Your task to perform on an android device: Open accessibility settings Image 0: 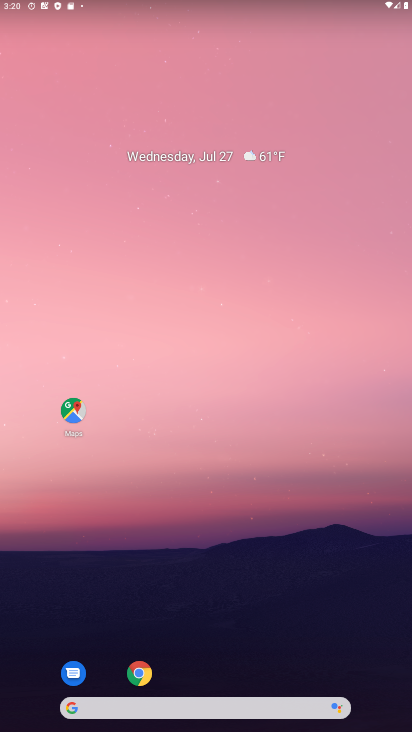
Step 0: drag from (77, 587) to (232, 214)
Your task to perform on an android device: Open accessibility settings Image 1: 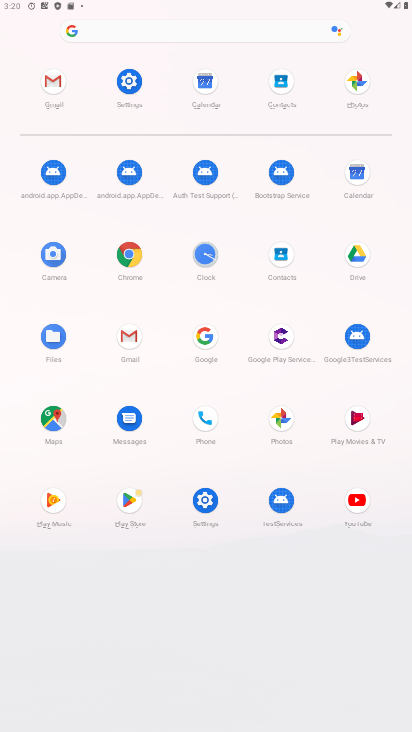
Step 1: click (202, 501)
Your task to perform on an android device: Open accessibility settings Image 2: 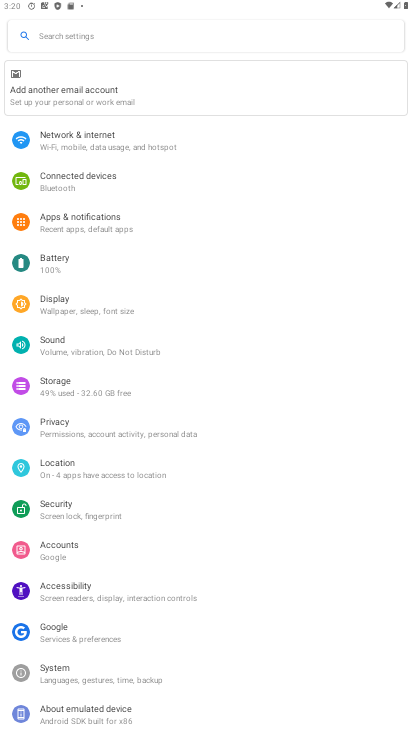
Step 2: click (85, 586)
Your task to perform on an android device: Open accessibility settings Image 3: 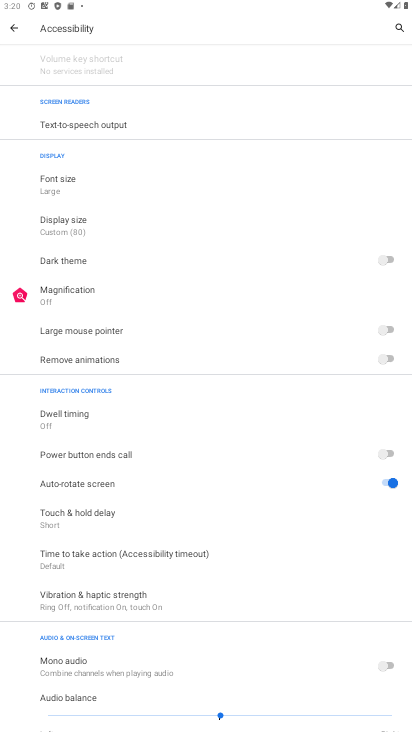
Step 3: task complete